Your task to perform on an android device: Open sound settings Image 0: 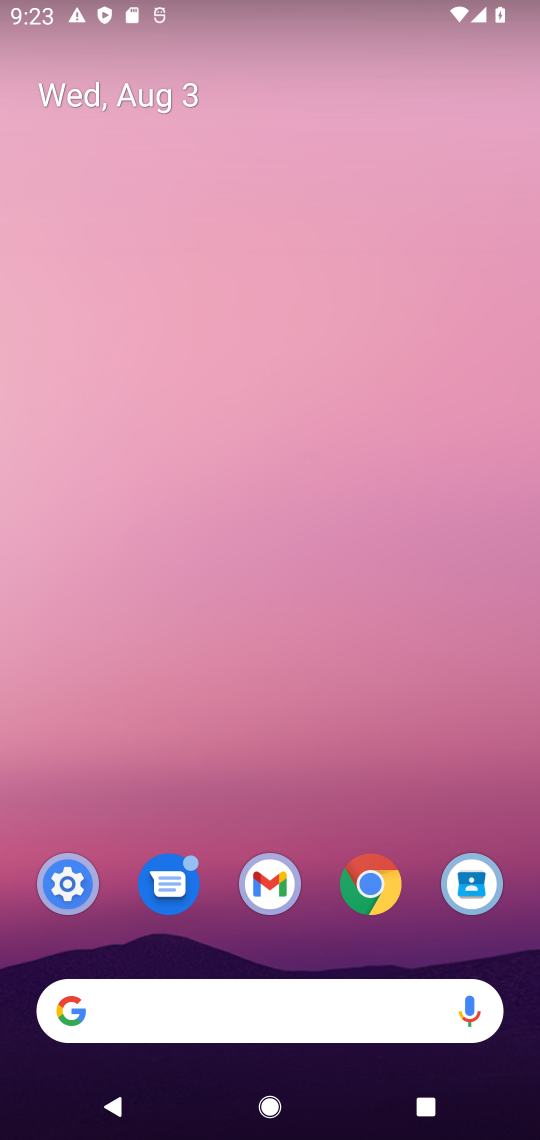
Step 0: drag from (346, 864) to (326, 78)
Your task to perform on an android device: Open sound settings Image 1: 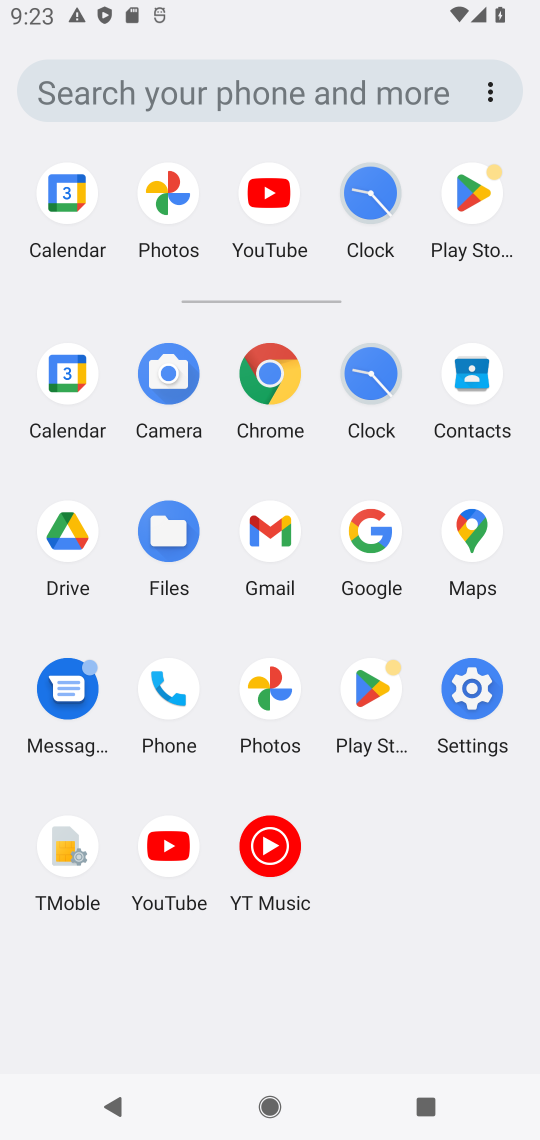
Step 1: click (471, 667)
Your task to perform on an android device: Open sound settings Image 2: 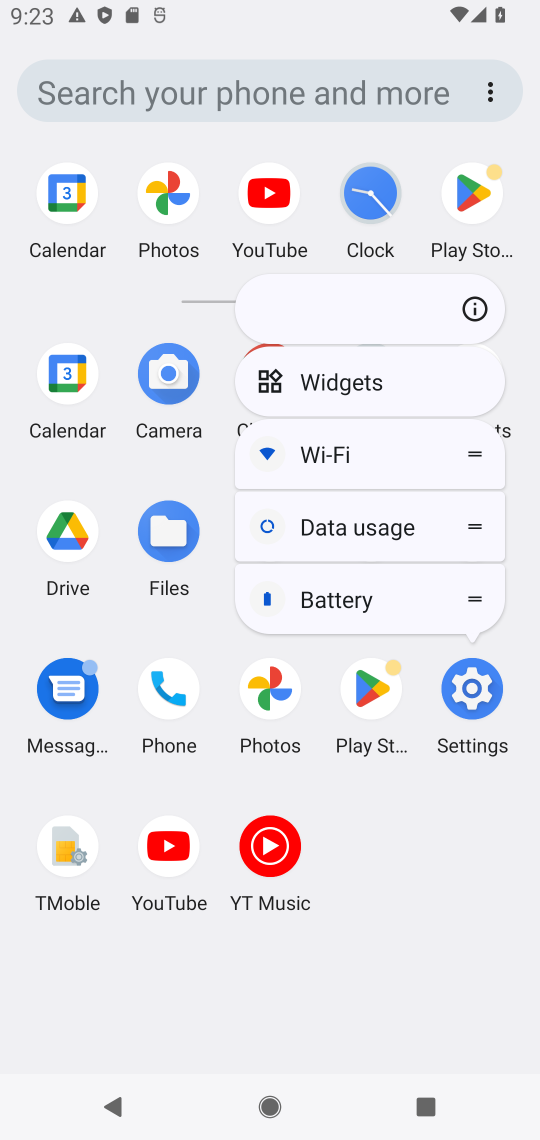
Step 2: click (477, 685)
Your task to perform on an android device: Open sound settings Image 3: 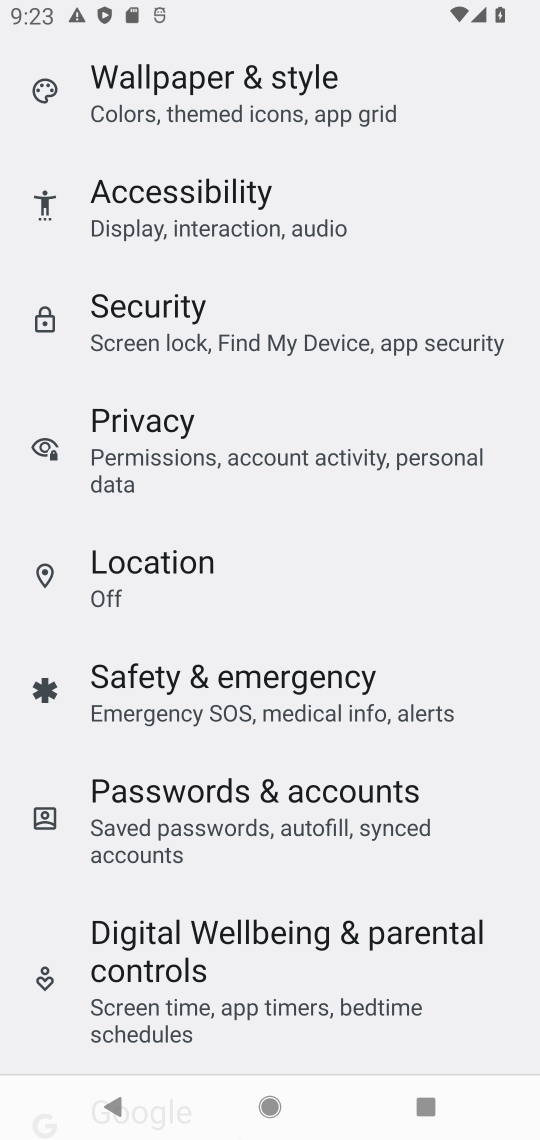
Step 3: drag from (226, 268) to (243, 816)
Your task to perform on an android device: Open sound settings Image 4: 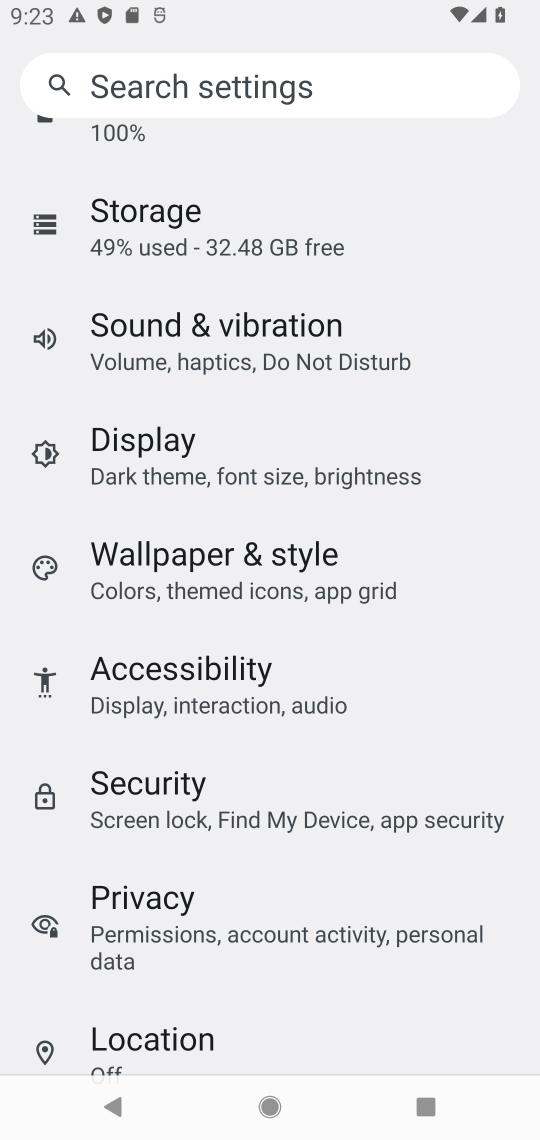
Step 4: click (202, 331)
Your task to perform on an android device: Open sound settings Image 5: 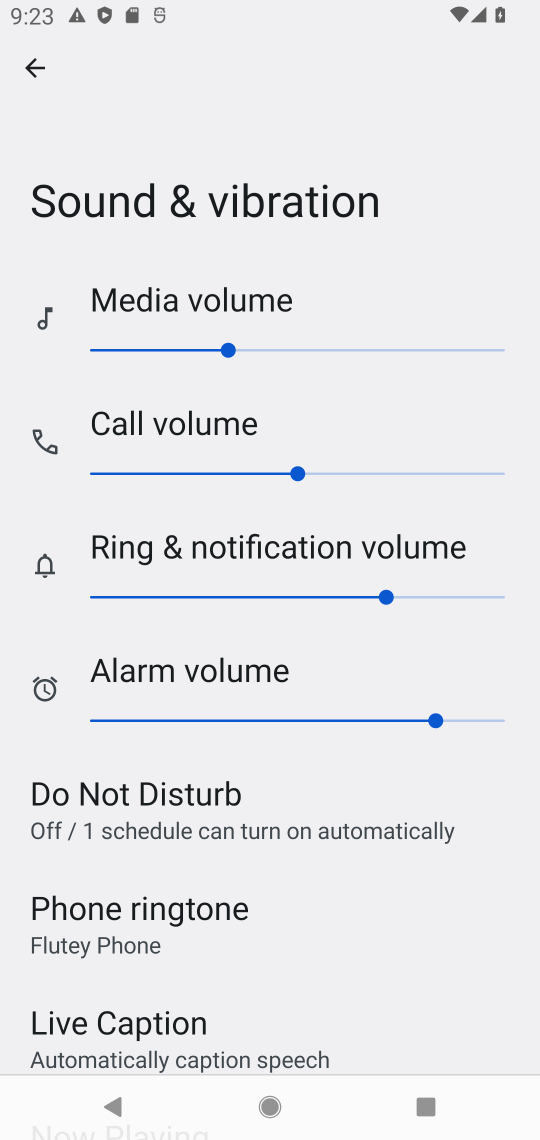
Step 5: task complete